Your task to perform on an android device: uninstall "Messenger Lite" Image 0: 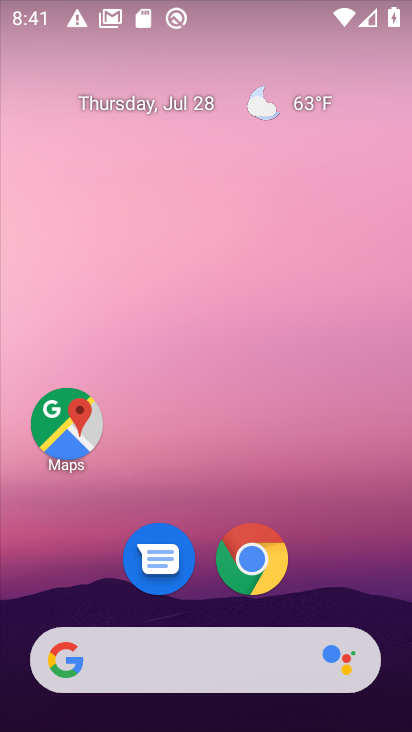
Step 0: drag from (344, 593) to (298, 0)
Your task to perform on an android device: uninstall "Messenger Lite" Image 1: 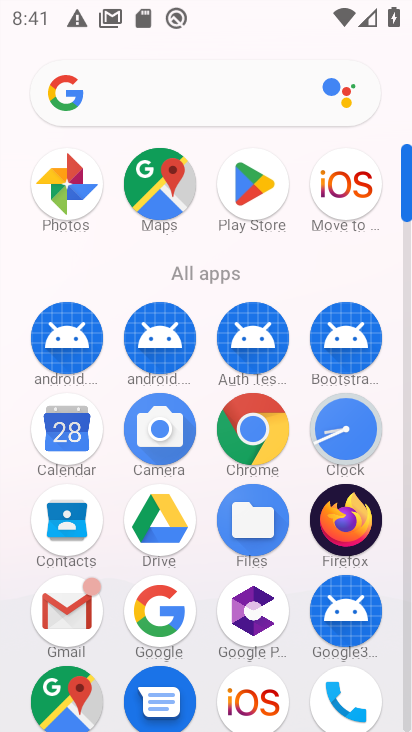
Step 1: click (254, 182)
Your task to perform on an android device: uninstall "Messenger Lite" Image 2: 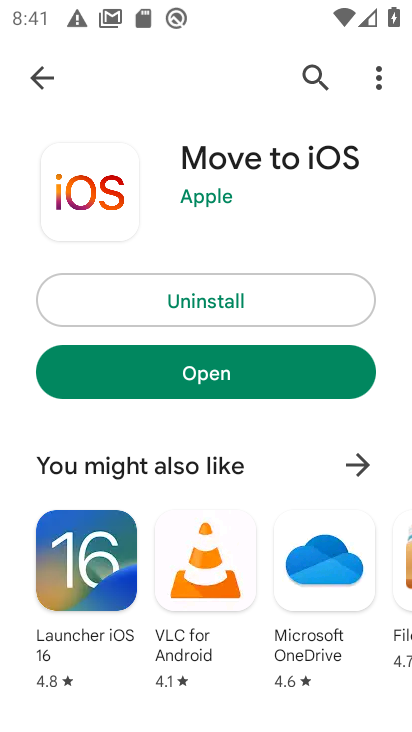
Step 2: click (312, 76)
Your task to perform on an android device: uninstall "Messenger Lite" Image 3: 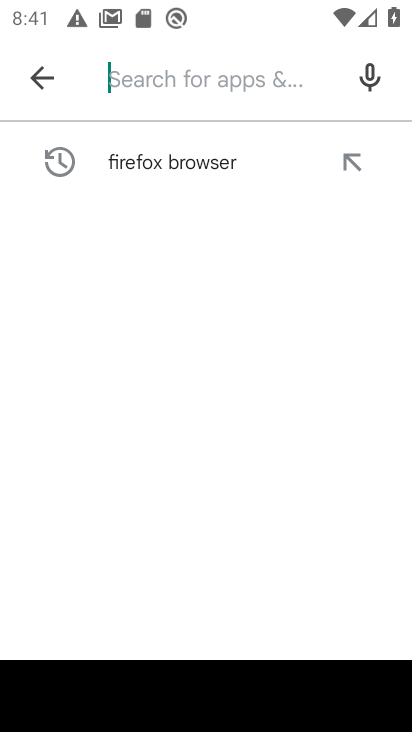
Step 3: type "Messenger Lite"
Your task to perform on an android device: uninstall "Messenger Lite" Image 4: 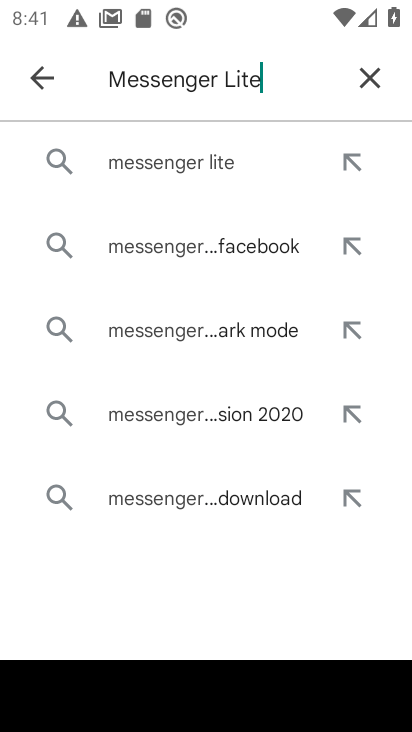
Step 4: click (150, 172)
Your task to perform on an android device: uninstall "Messenger Lite" Image 5: 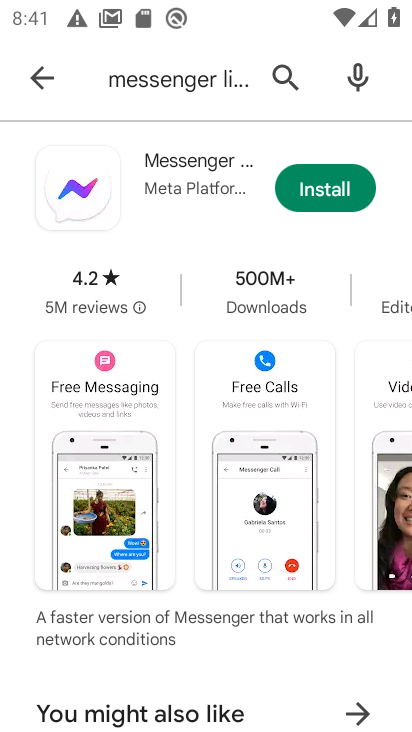
Step 5: task complete